Your task to perform on an android device: Go to Reddit.com Image 0: 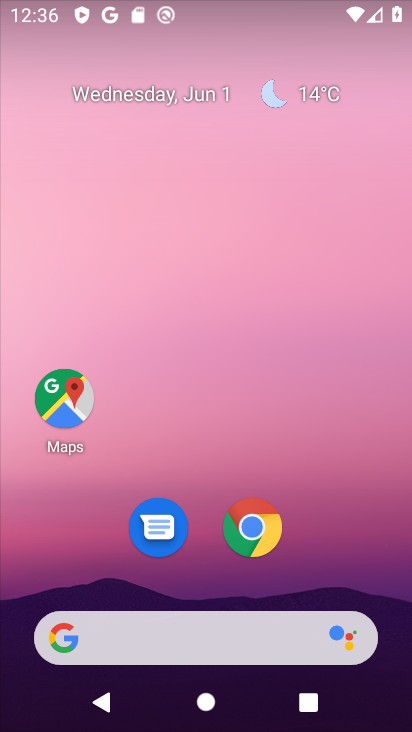
Step 0: drag from (227, 591) to (230, 3)
Your task to perform on an android device: Go to Reddit.com Image 1: 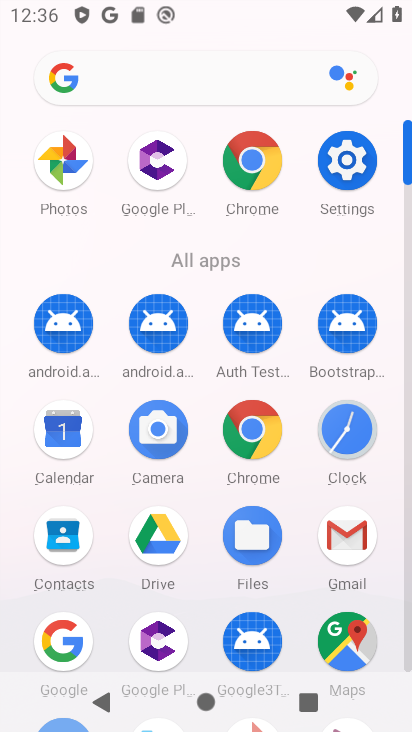
Step 1: click (269, 169)
Your task to perform on an android device: Go to Reddit.com Image 2: 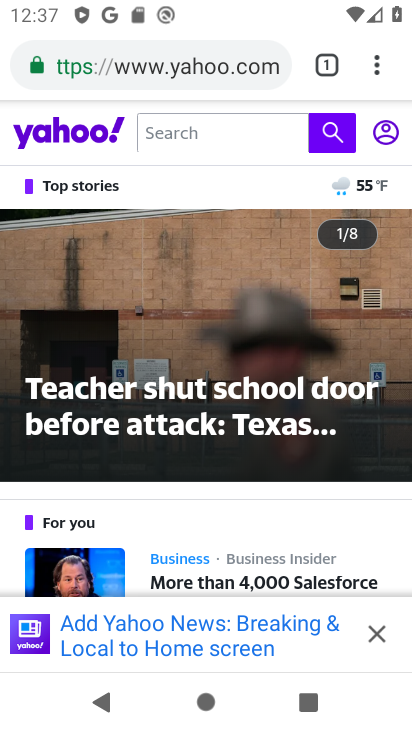
Step 2: click (254, 64)
Your task to perform on an android device: Go to Reddit.com Image 3: 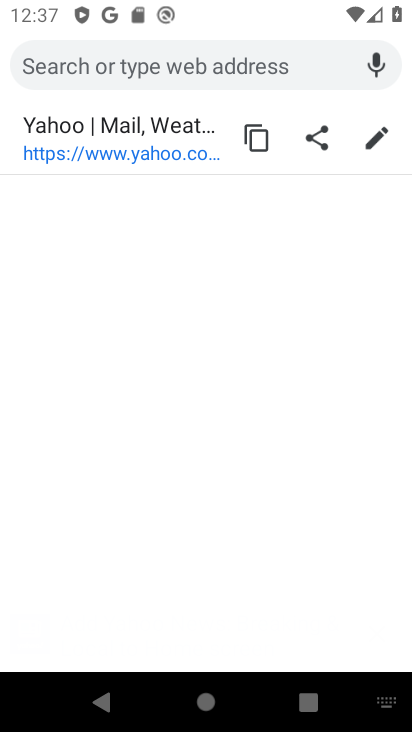
Step 3: type "reddit"
Your task to perform on an android device: Go to Reddit.com Image 4: 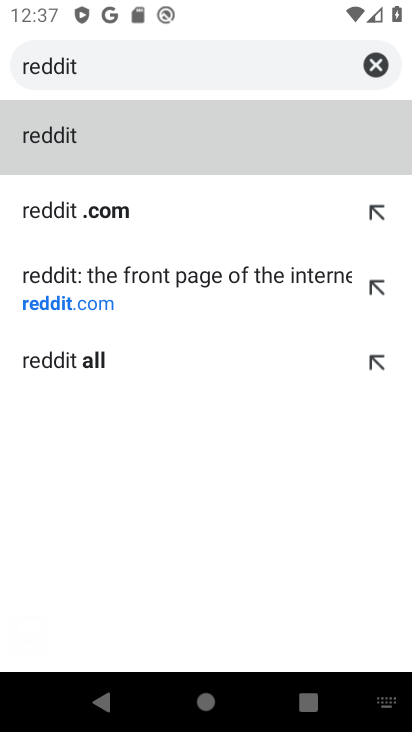
Step 4: click (159, 295)
Your task to perform on an android device: Go to Reddit.com Image 5: 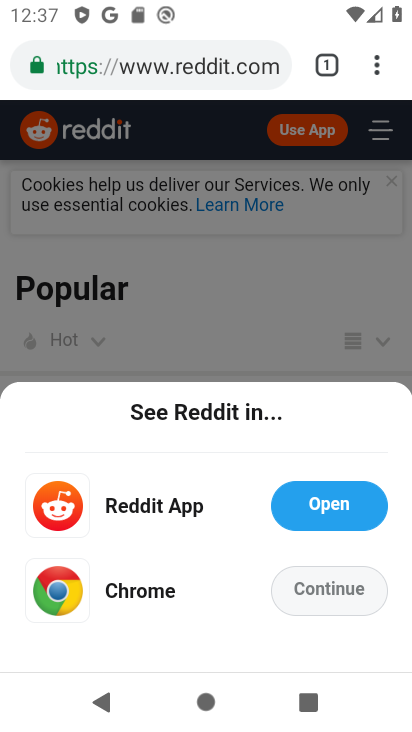
Step 5: task complete